Your task to perform on an android device: Open calendar and show me the fourth week of next month Image 0: 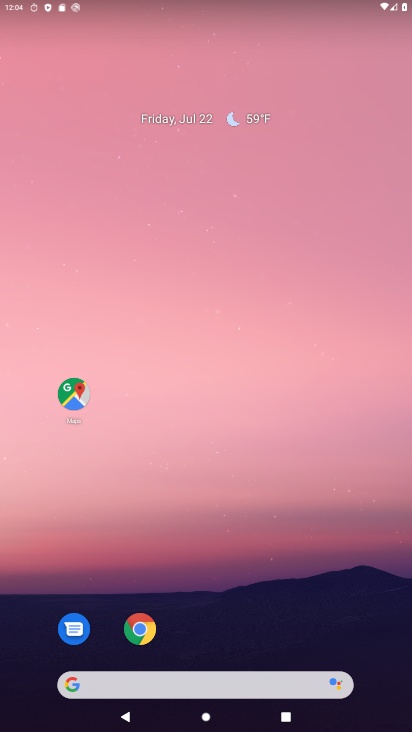
Step 0: drag from (256, 549) to (307, 22)
Your task to perform on an android device: Open calendar and show me the fourth week of next month Image 1: 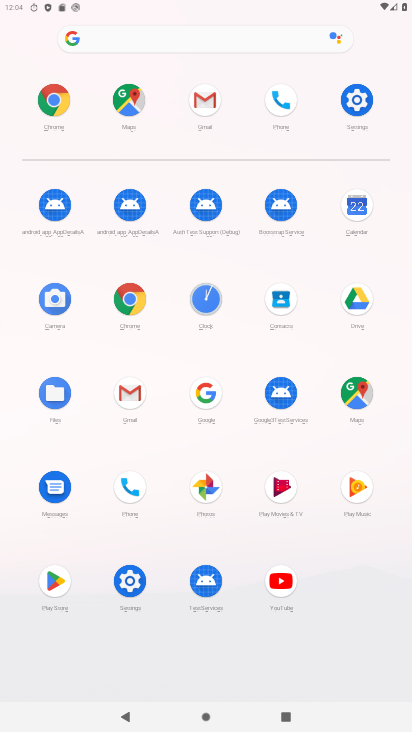
Step 1: click (360, 213)
Your task to perform on an android device: Open calendar and show me the fourth week of next month Image 2: 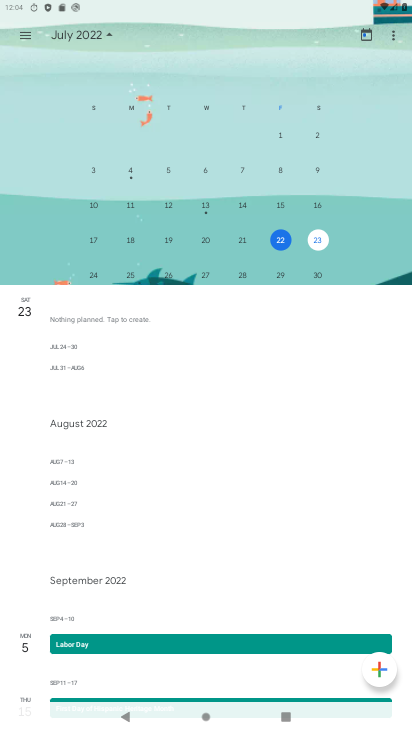
Step 2: click (108, 33)
Your task to perform on an android device: Open calendar and show me the fourth week of next month Image 3: 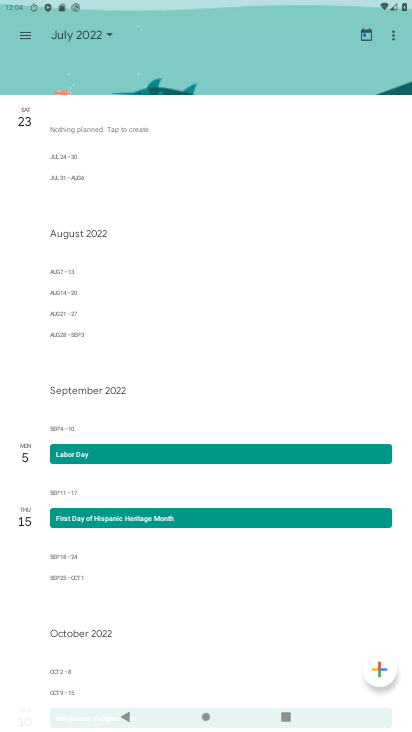
Step 3: click (107, 24)
Your task to perform on an android device: Open calendar and show me the fourth week of next month Image 4: 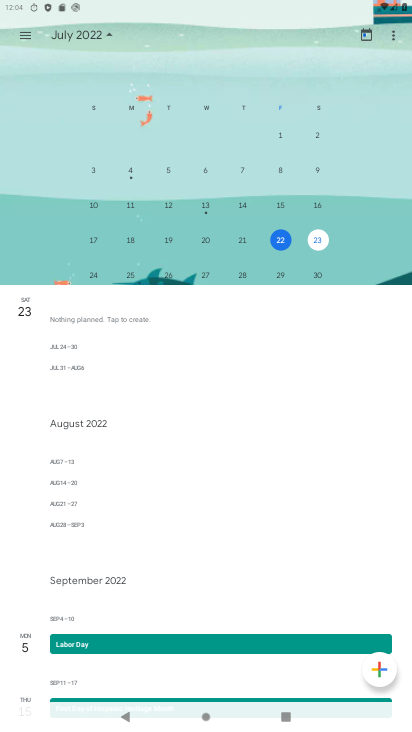
Step 4: click (109, 35)
Your task to perform on an android device: Open calendar and show me the fourth week of next month Image 5: 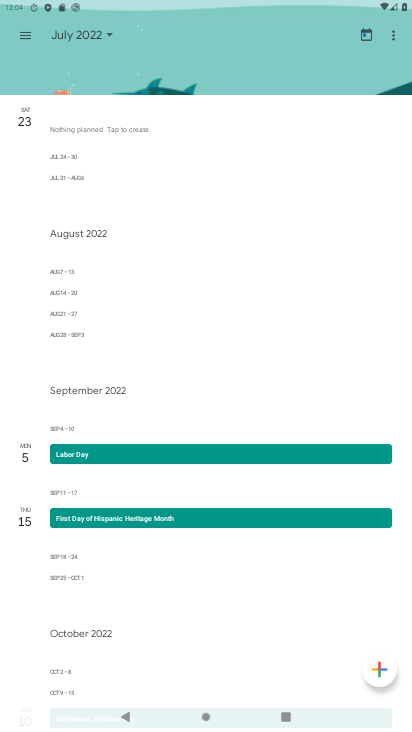
Step 5: click (109, 35)
Your task to perform on an android device: Open calendar and show me the fourth week of next month Image 6: 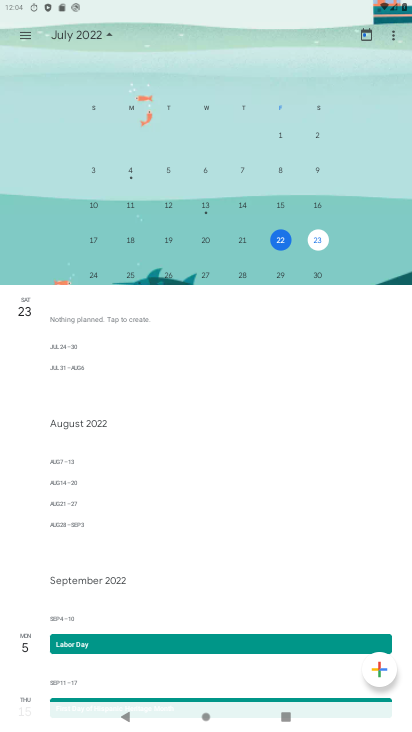
Step 6: drag from (344, 196) to (2, 176)
Your task to perform on an android device: Open calendar and show me the fourth week of next month Image 7: 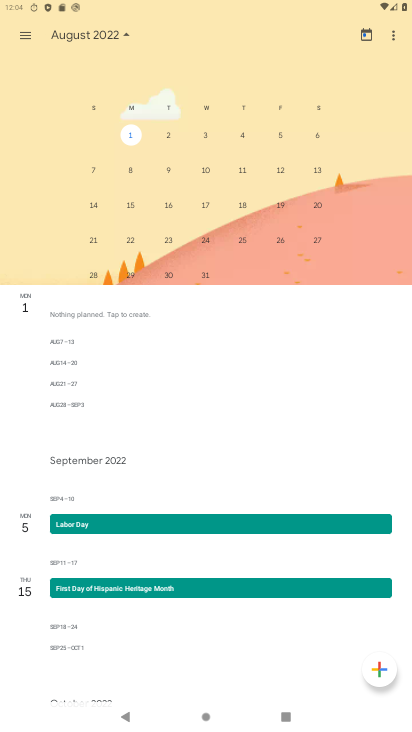
Step 7: click (204, 238)
Your task to perform on an android device: Open calendar and show me the fourth week of next month Image 8: 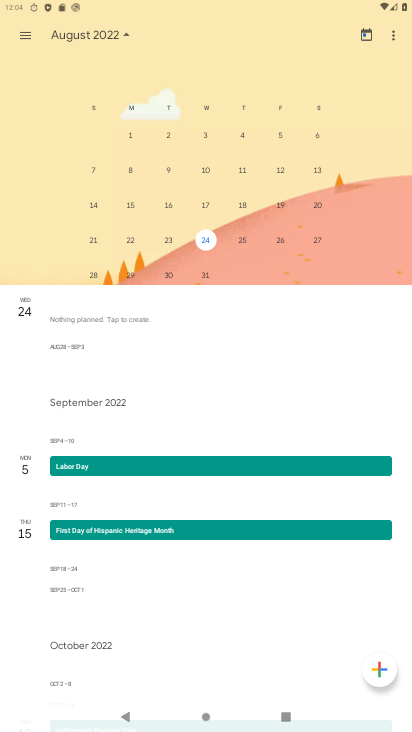
Step 8: click (30, 41)
Your task to perform on an android device: Open calendar and show me the fourth week of next month Image 9: 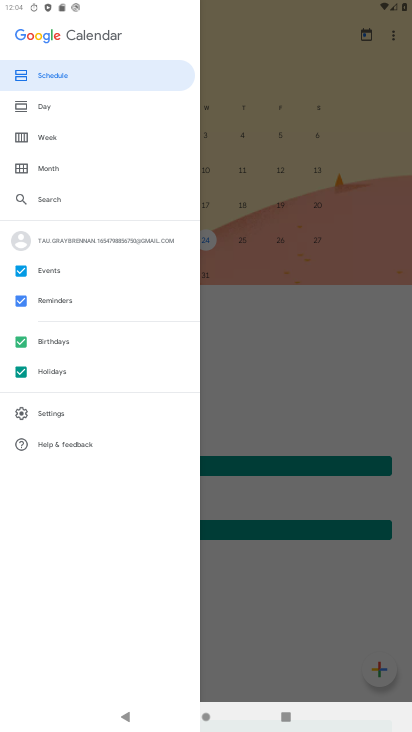
Step 9: click (48, 140)
Your task to perform on an android device: Open calendar and show me the fourth week of next month Image 10: 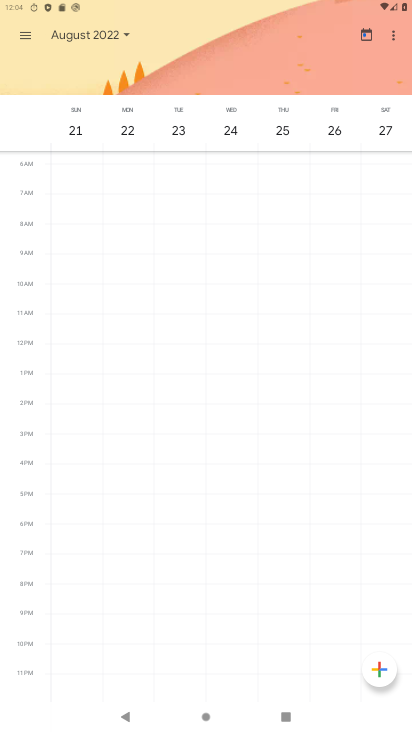
Step 10: task complete